Your task to perform on an android device: Go to location settings Image 0: 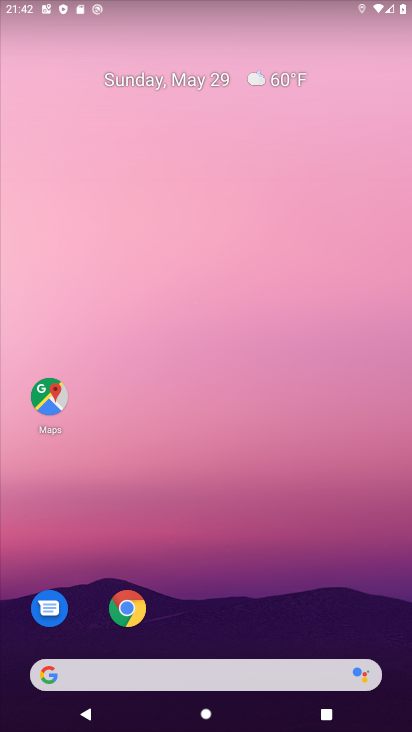
Step 0: drag from (383, 629) to (367, 215)
Your task to perform on an android device: Go to location settings Image 1: 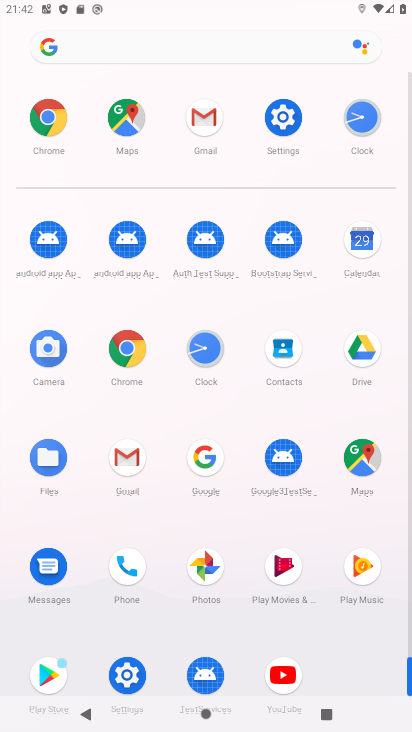
Step 1: click (287, 133)
Your task to perform on an android device: Go to location settings Image 2: 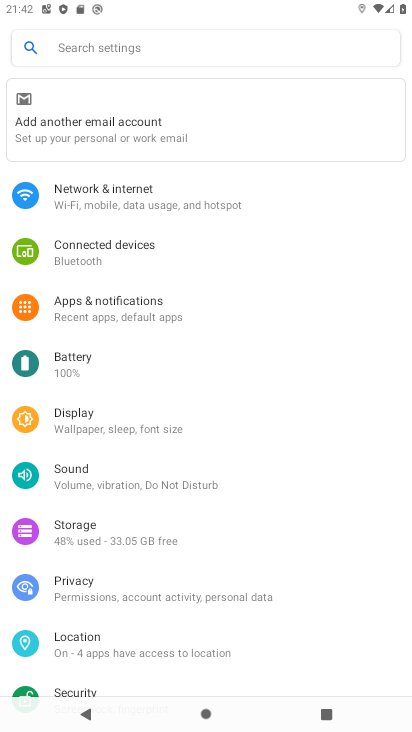
Step 2: drag from (295, 392) to (297, 324)
Your task to perform on an android device: Go to location settings Image 3: 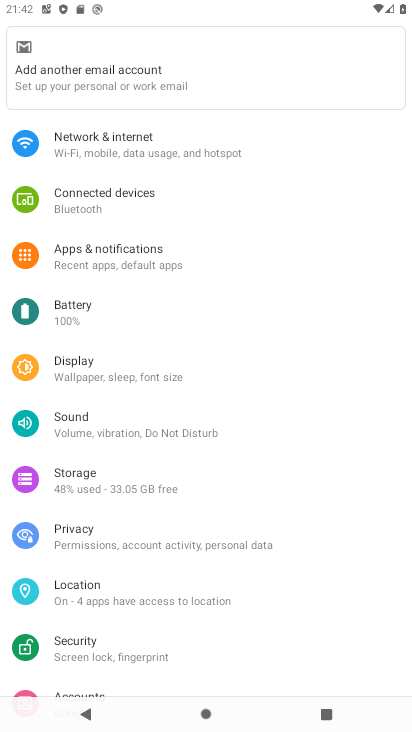
Step 3: drag from (303, 422) to (309, 334)
Your task to perform on an android device: Go to location settings Image 4: 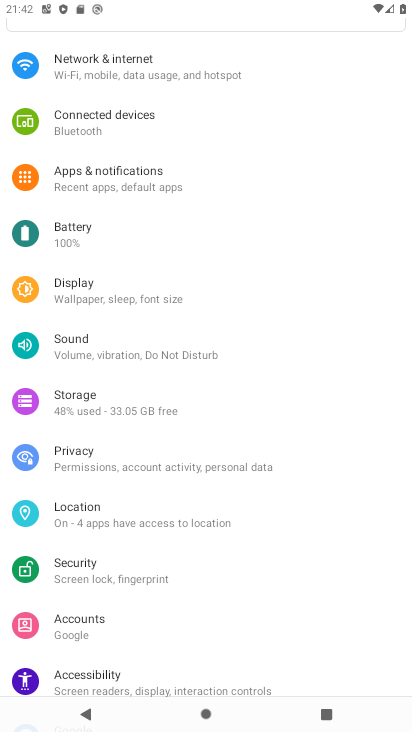
Step 4: drag from (299, 444) to (312, 350)
Your task to perform on an android device: Go to location settings Image 5: 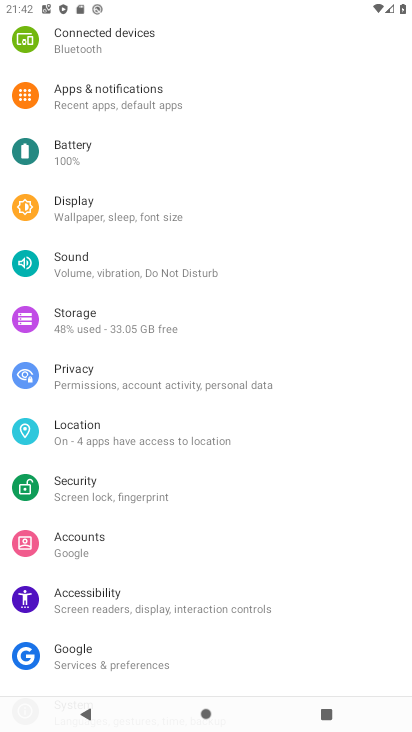
Step 5: drag from (312, 465) to (311, 318)
Your task to perform on an android device: Go to location settings Image 6: 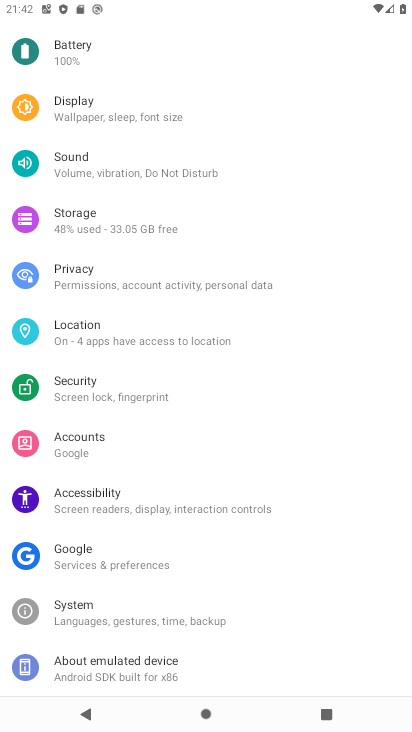
Step 6: drag from (330, 463) to (341, 337)
Your task to perform on an android device: Go to location settings Image 7: 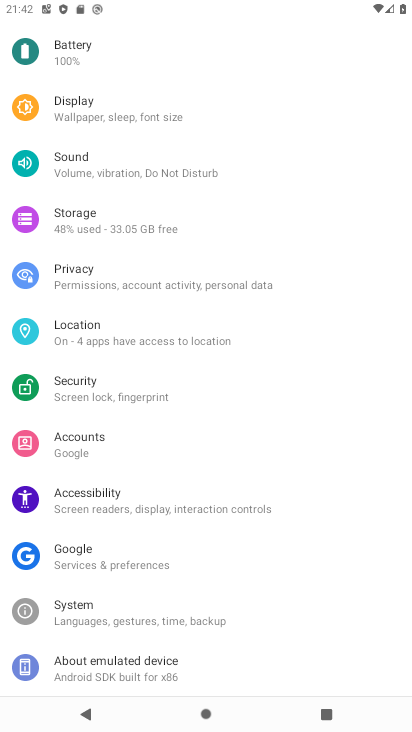
Step 7: click (215, 332)
Your task to perform on an android device: Go to location settings Image 8: 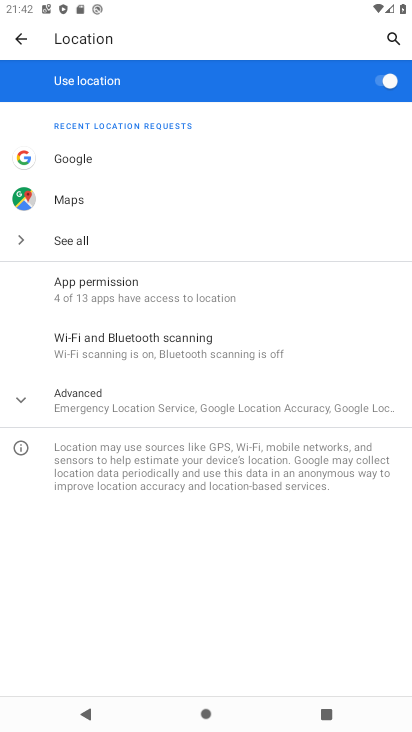
Step 8: task complete